Your task to perform on an android device: change the clock display to analog Image 0: 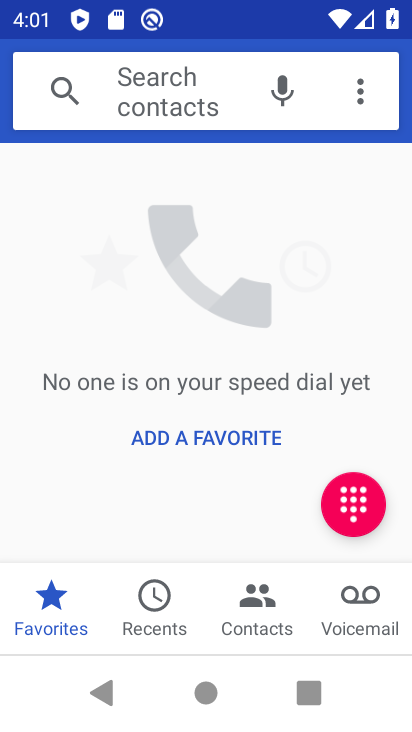
Step 0: press home button
Your task to perform on an android device: change the clock display to analog Image 1: 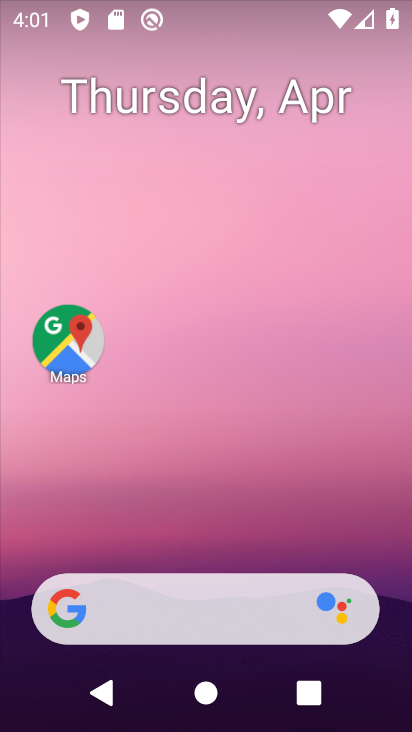
Step 1: drag from (224, 646) to (224, 168)
Your task to perform on an android device: change the clock display to analog Image 2: 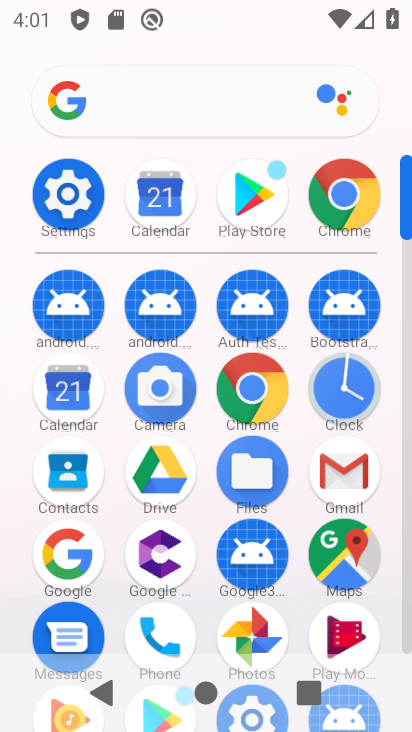
Step 2: click (340, 388)
Your task to perform on an android device: change the clock display to analog Image 3: 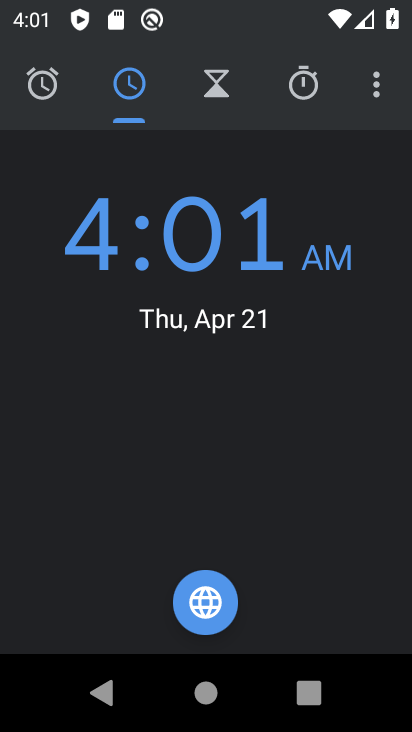
Step 3: drag from (374, 93) to (312, 149)
Your task to perform on an android device: change the clock display to analog Image 4: 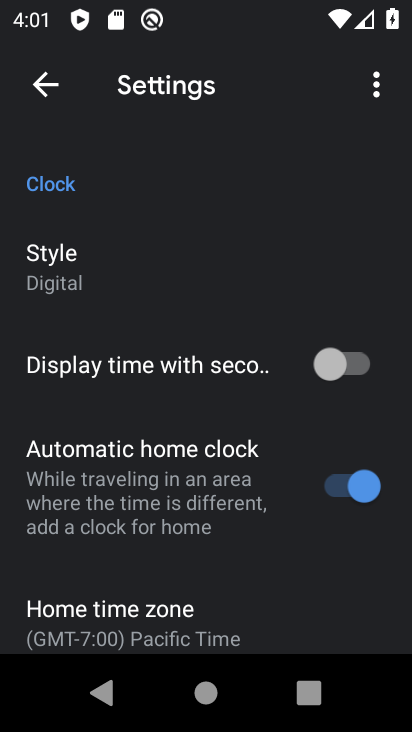
Step 4: click (51, 274)
Your task to perform on an android device: change the clock display to analog Image 5: 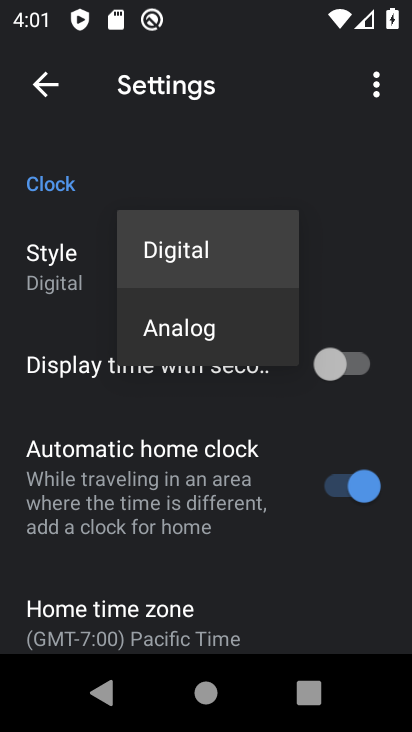
Step 5: click (176, 335)
Your task to perform on an android device: change the clock display to analog Image 6: 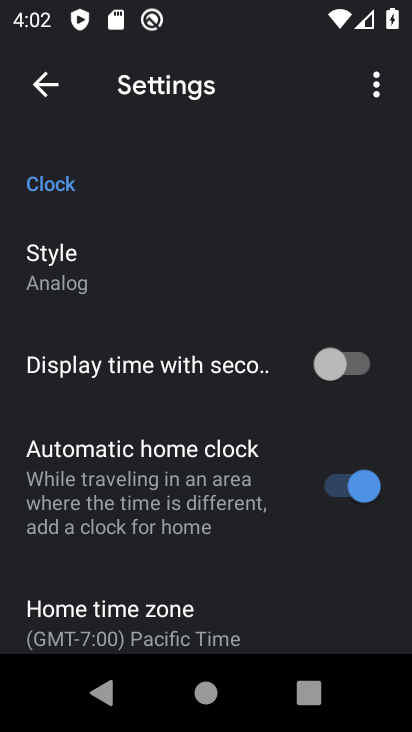
Step 6: task complete